Your task to perform on an android device: check the backup settings in the google photos Image 0: 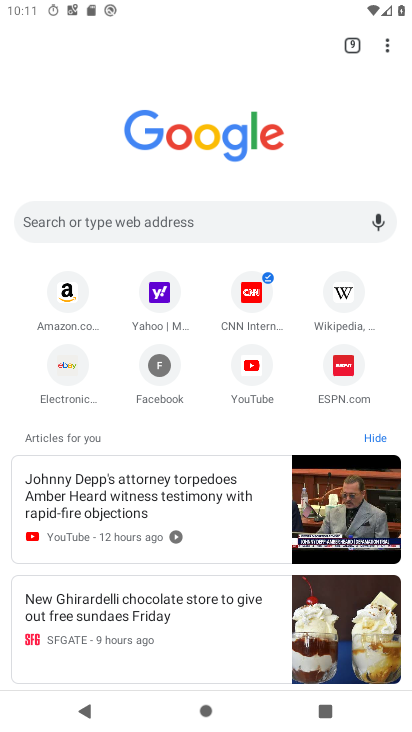
Step 0: press home button
Your task to perform on an android device: check the backup settings in the google photos Image 1: 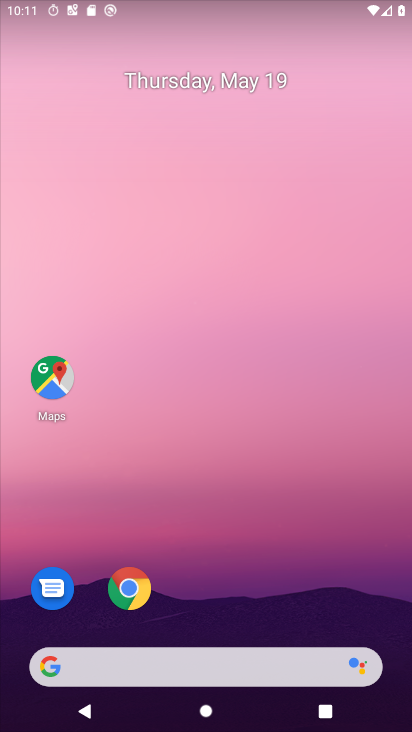
Step 1: drag from (166, 672) to (293, 177)
Your task to perform on an android device: check the backup settings in the google photos Image 2: 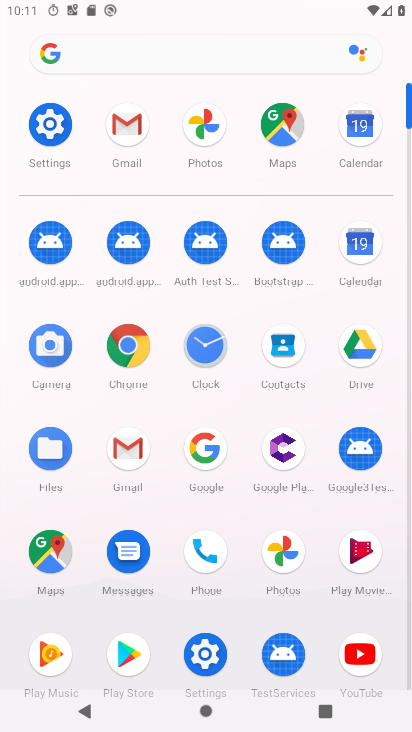
Step 2: click (286, 564)
Your task to perform on an android device: check the backup settings in the google photos Image 3: 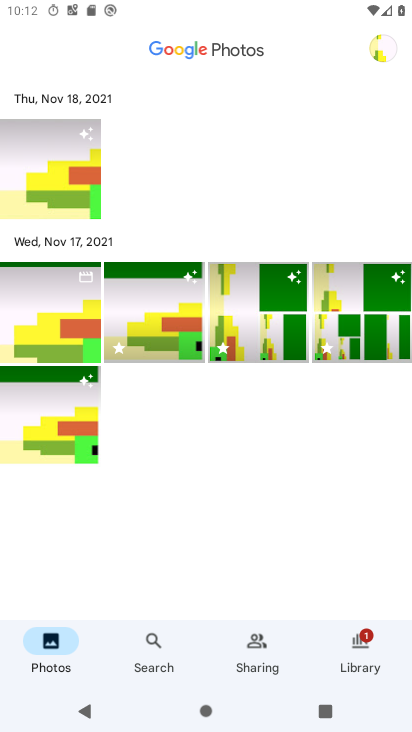
Step 3: click (380, 46)
Your task to perform on an android device: check the backup settings in the google photos Image 4: 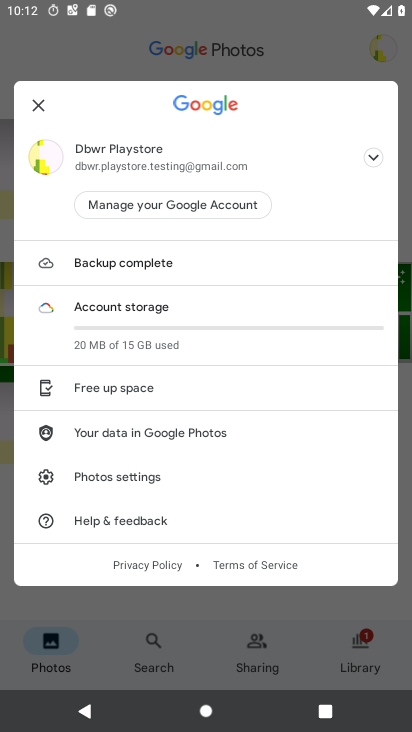
Step 4: click (142, 480)
Your task to perform on an android device: check the backup settings in the google photos Image 5: 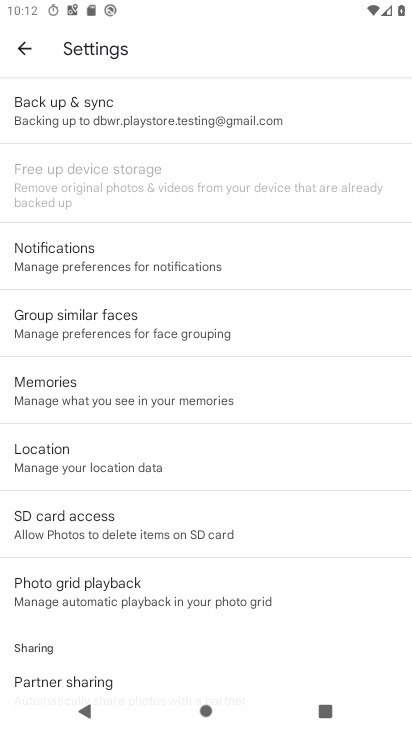
Step 5: click (175, 120)
Your task to perform on an android device: check the backup settings in the google photos Image 6: 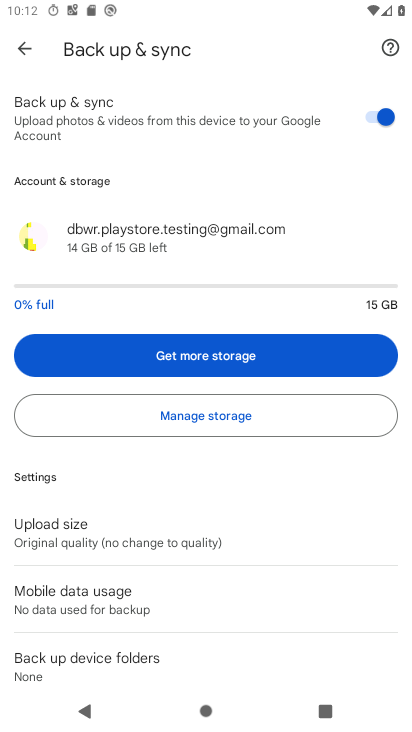
Step 6: task complete